Your task to perform on an android device: Open calendar and show me the first week of next month Image 0: 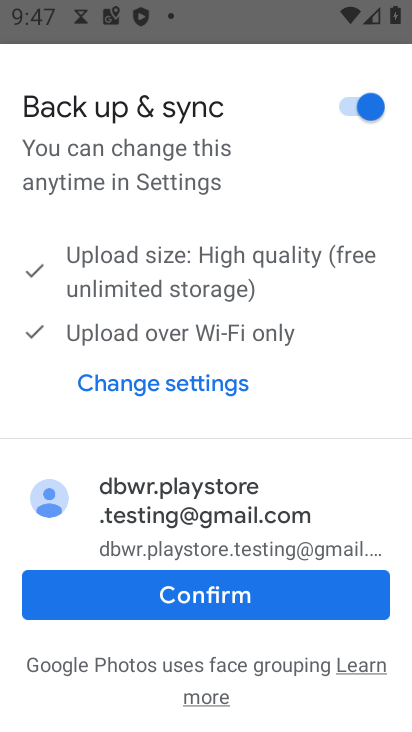
Step 0: press home button
Your task to perform on an android device: Open calendar and show me the first week of next month Image 1: 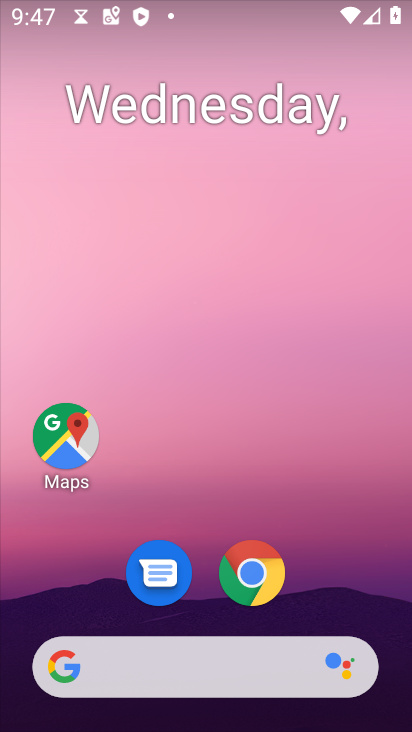
Step 1: drag from (323, 580) to (328, 266)
Your task to perform on an android device: Open calendar and show me the first week of next month Image 2: 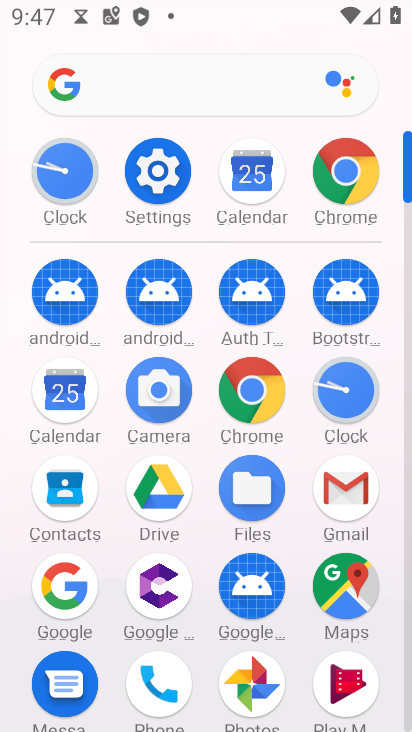
Step 2: click (234, 163)
Your task to perform on an android device: Open calendar and show me the first week of next month Image 3: 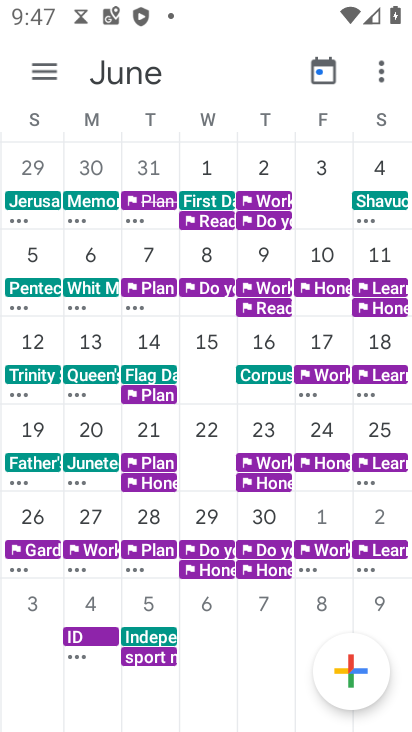
Step 3: click (74, 177)
Your task to perform on an android device: Open calendar and show me the first week of next month Image 4: 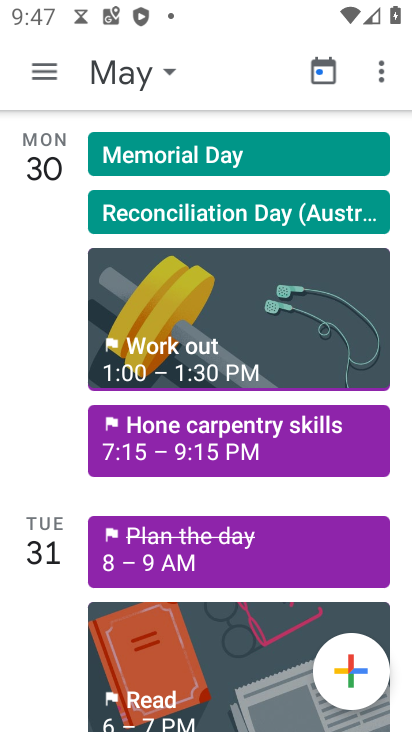
Step 4: click (48, 69)
Your task to perform on an android device: Open calendar and show me the first week of next month Image 5: 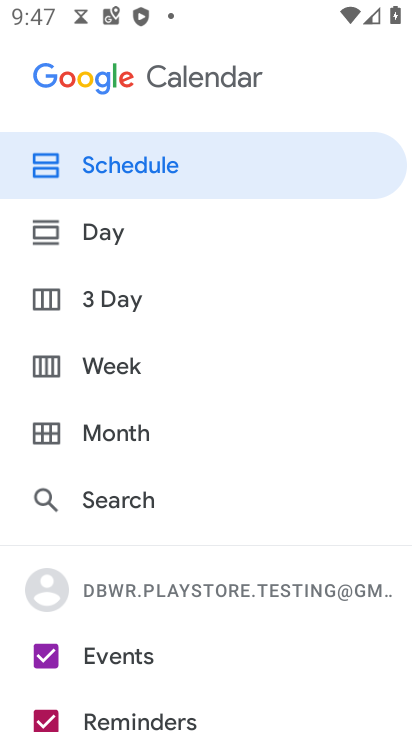
Step 5: click (120, 361)
Your task to perform on an android device: Open calendar and show me the first week of next month Image 6: 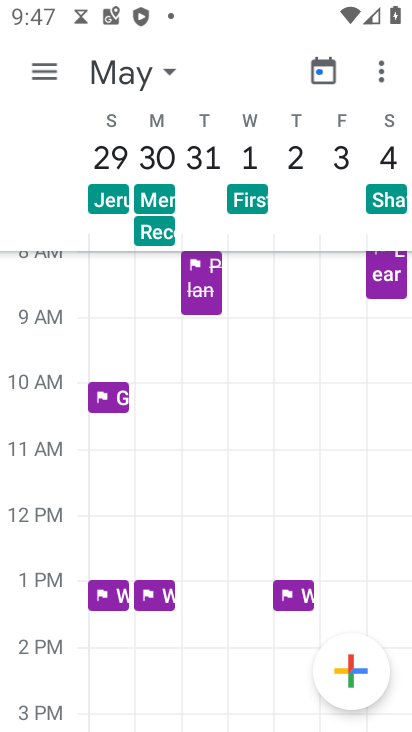
Step 6: task complete